Your task to perform on an android device: see sites visited before in the chrome app Image 0: 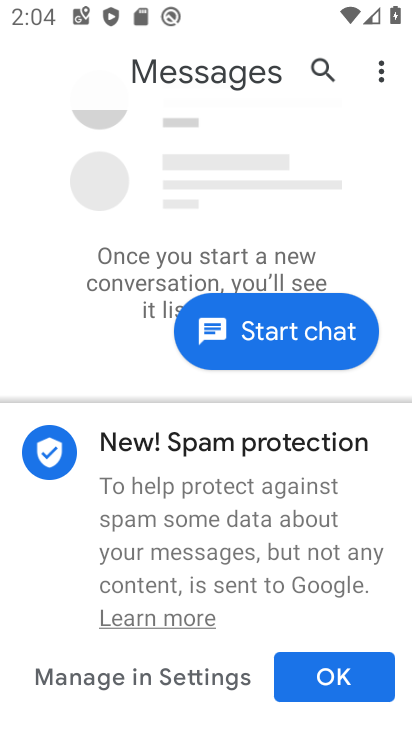
Step 0: press home button
Your task to perform on an android device: see sites visited before in the chrome app Image 1: 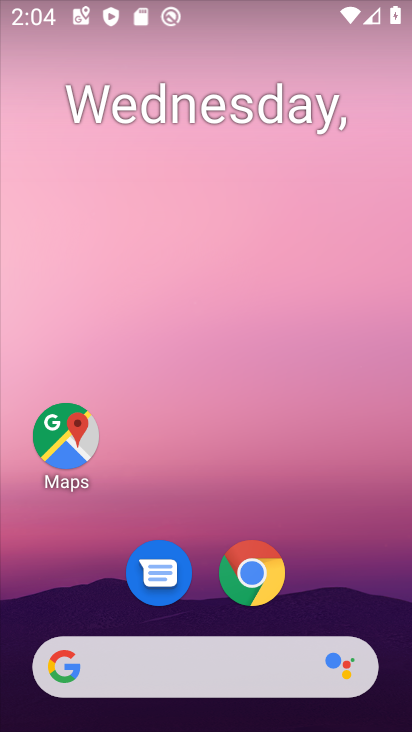
Step 1: click (248, 569)
Your task to perform on an android device: see sites visited before in the chrome app Image 2: 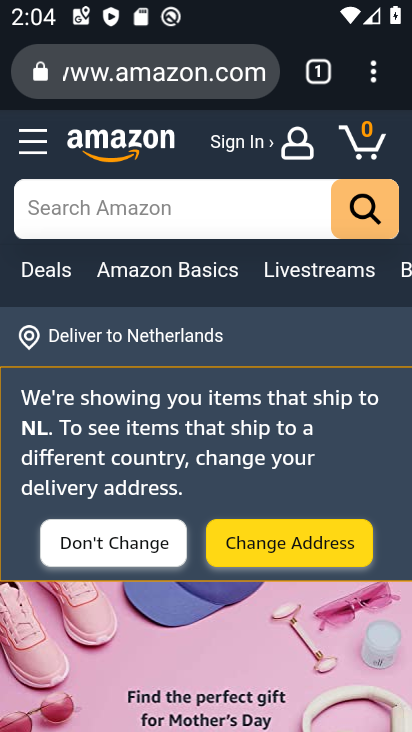
Step 2: click (366, 69)
Your task to perform on an android device: see sites visited before in the chrome app Image 3: 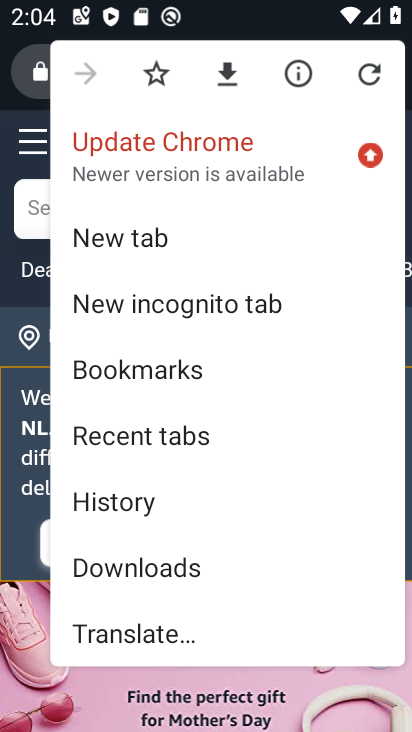
Step 3: click (130, 496)
Your task to perform on an android device: see sites visited before in the chrome app Image 4: 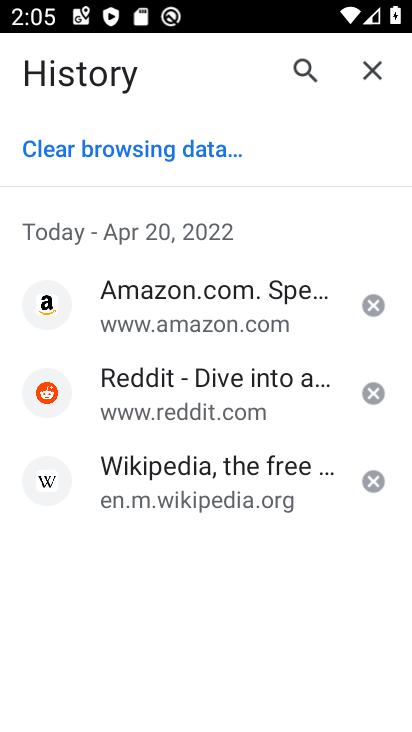
Step 4: task complete